Your task to perform on an android device: Open Google Maps and go to "Timeline" Image 0: 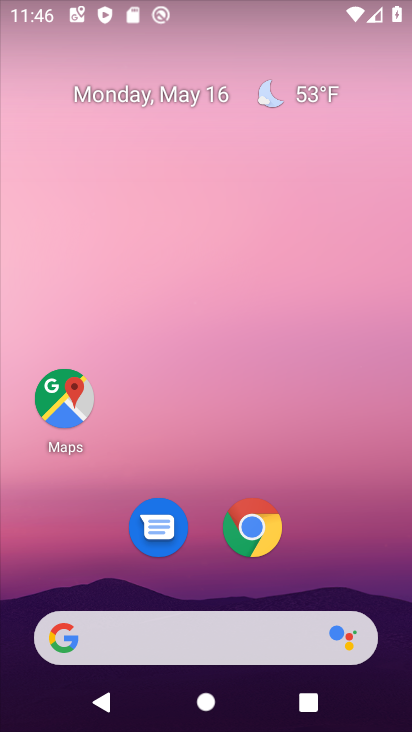
Step 0: click (59, 395)
Your task to perform on an android device: Open Google Maps and go to "Timeline" Image 1: 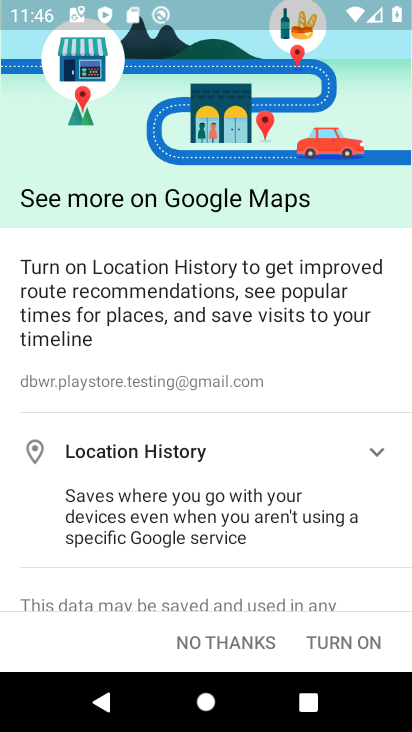
Step 1: click (212, 643)
Your task to perform on an android device: Open Google Maps and go to "Timeline" Image 2: 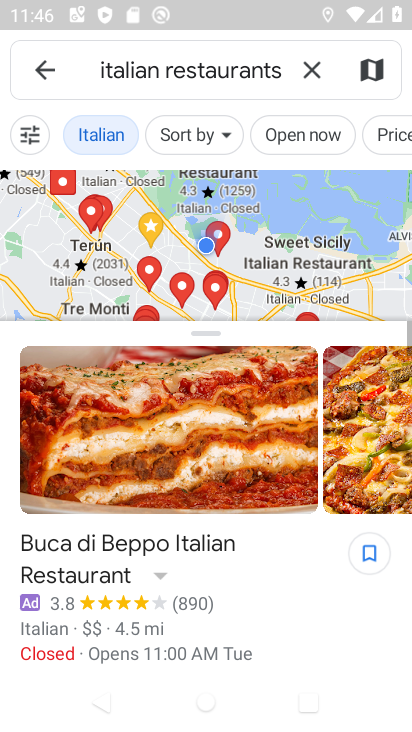
Step 2: click (53, 67)
Your task to perform on an android device: Open Google Maps and go to "Timeline" Image 3: 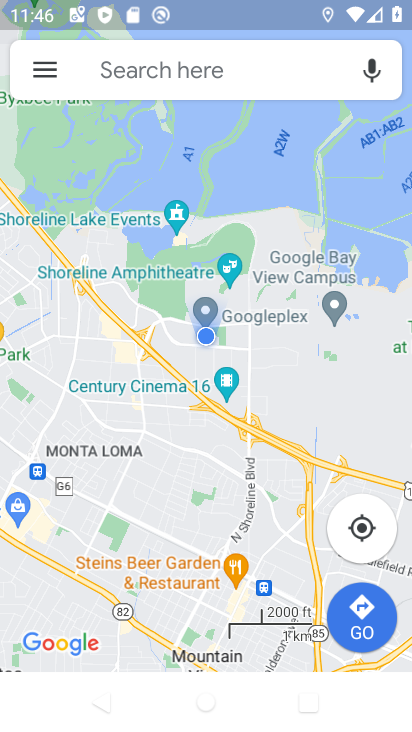
Step 3: click (53, 67)
Your task to perform on an android device: Open Google Maps and go to "Timeline" Image 4: 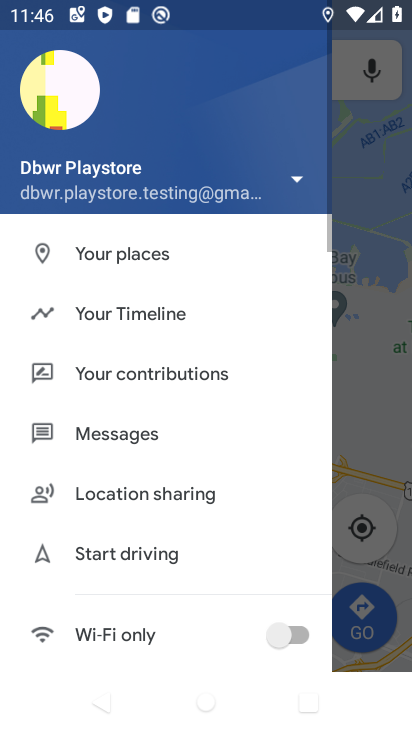
Step 4: click (141, 320)
Your task to perform on an android device: Open Google Maps and go to "Timeline" Image 5: 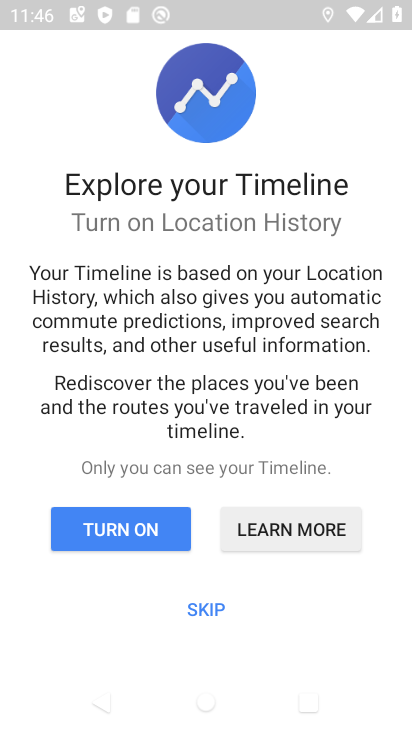
Step 5: click (200, 603)
Your task to perform on an android device: Open Google Maps and go to "Timeline" Image 6: 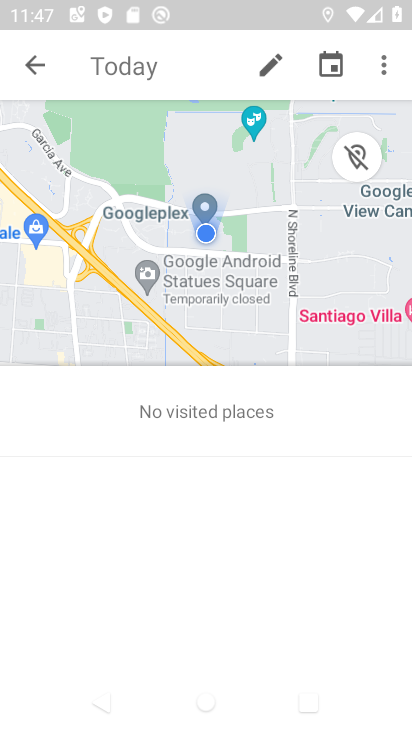
Step 6: task complete